Your task to perform on an android device: Open calendar and show me the fourth week of next month Image 0: 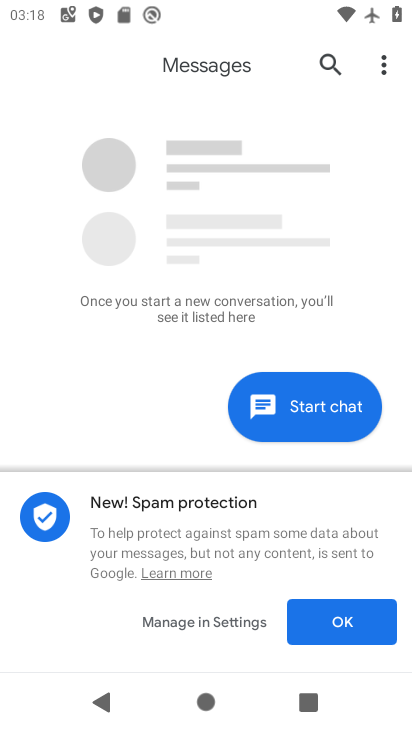
Step 0: drag from (195, 561) to (270, 178)
Your task to perform on an android device: Open calendar and show me the fourth week of next month Image 1: 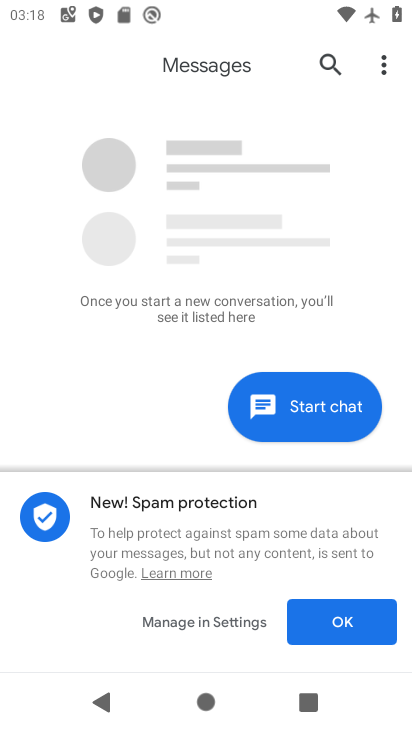
Step 1: press home button
Your task to perform on an android device: Open calendar and show me the fourth week of next month Image 2: 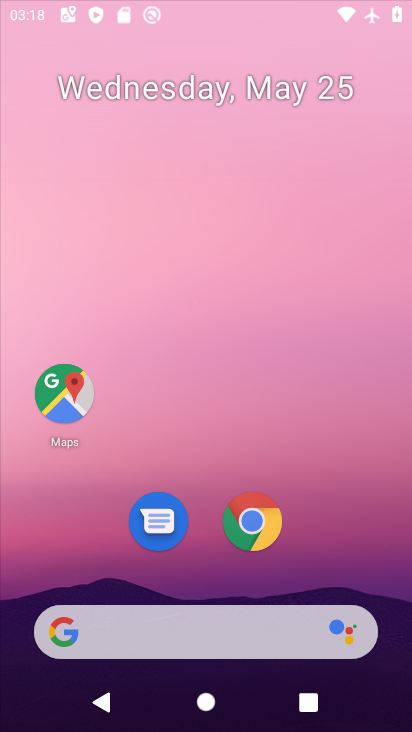
Step 2: drag from (350, 478) to (386, 183)
Your task to perform on an android device: Open calendar and show me the fourth week of next month Image 3: 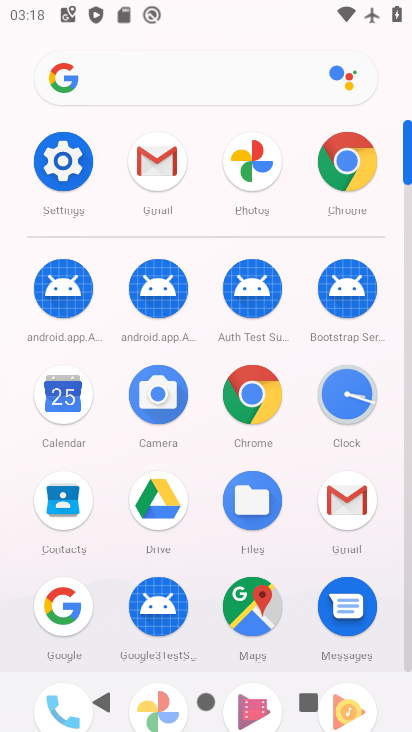
Step 3: click (71, 403)
Your task to perform on an android device: Open calendar and show me the fourth week of next month Image 4: 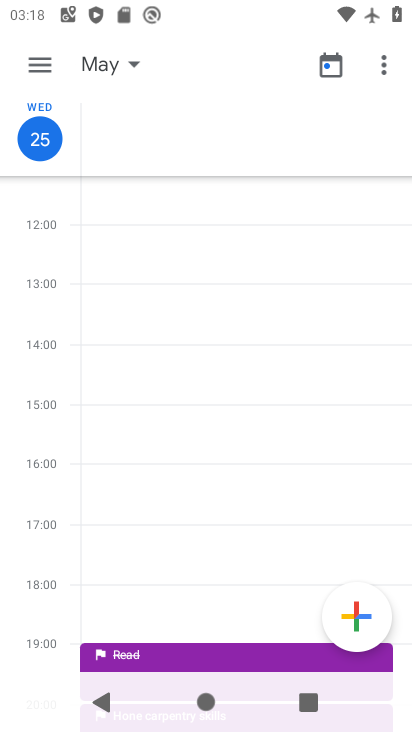
Step 4: click (132, 46)
Your task to perform on an android device: Open calendar and show me the fourth week of next month Image 5: 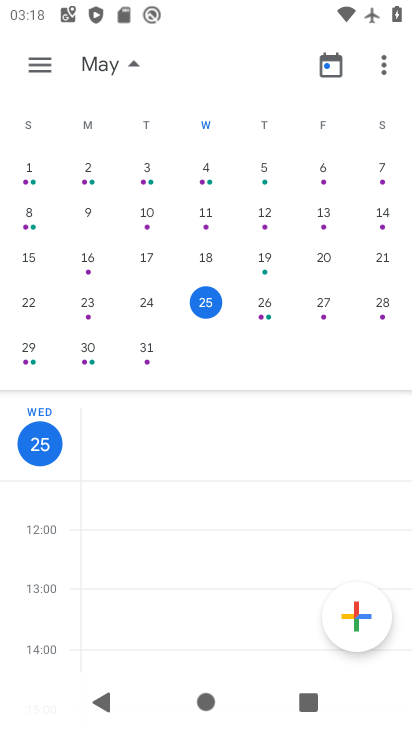
Step 5: drag from (370, 314) to (1, 245)
Your task to perform on an android device: Open calendar and show me the fourth week of next month Image 6: 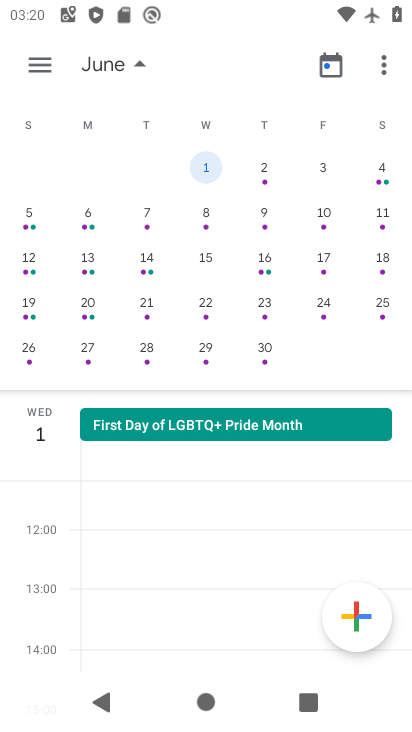
Step 6: click (202, 288)
Your task to perform on an android device: Open calendar and show me the fourth week of next month Image 7: 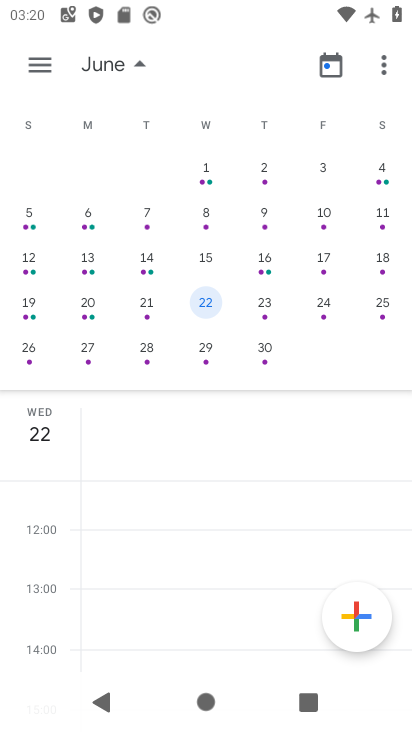
Step 7: task complete